Your task to perform on an android device: turn on wifi Image 0: 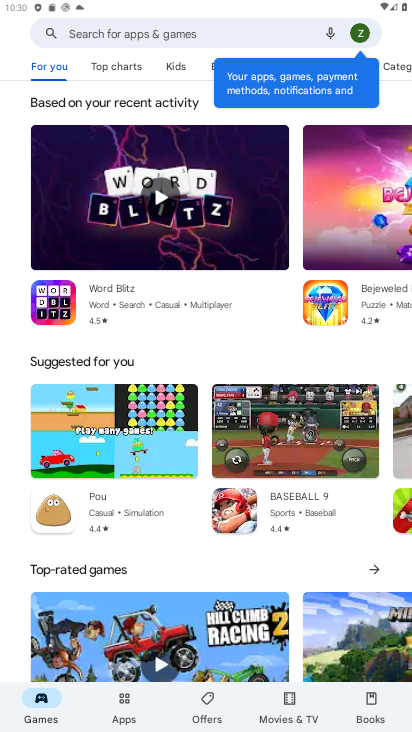
Step 0: press home button
Your task to perform on an android device: turn on wifi Image 1: 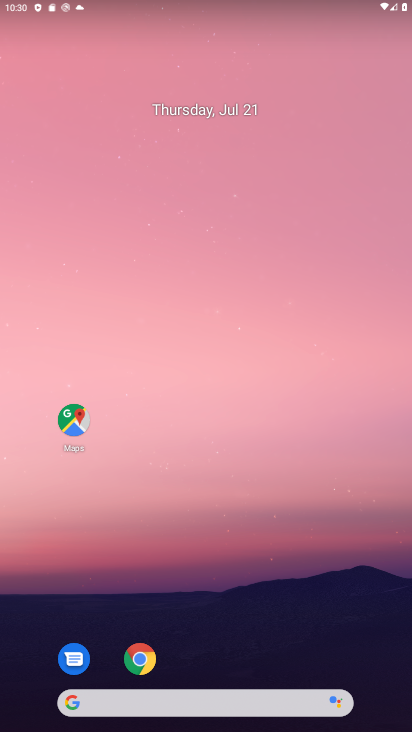
Step 1: task complete